Your task to perform on an android device: Check the weather Image 0: 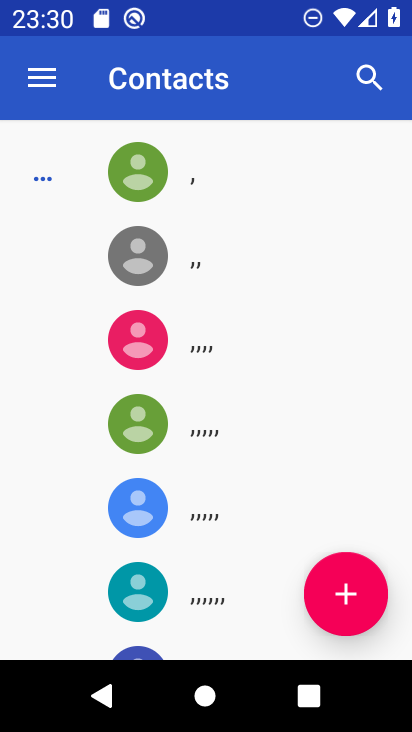
Step 0: press home button
Your task to perform on an android device: Check the weather Image 1: 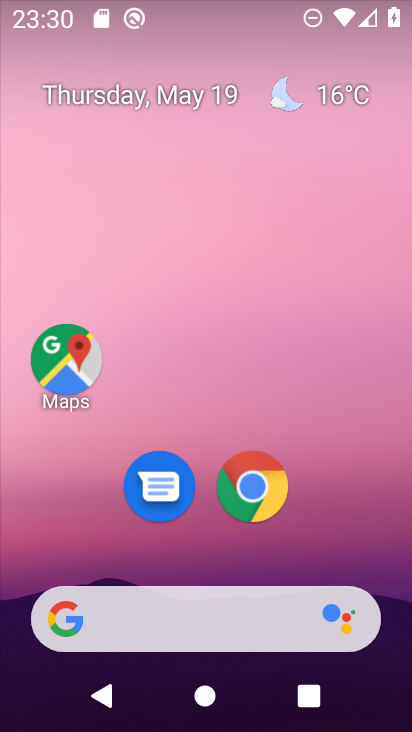
Step 1: drag from (387, 521) to (259, 13)
Your task to perform on an android device: Check the weather Image 2: 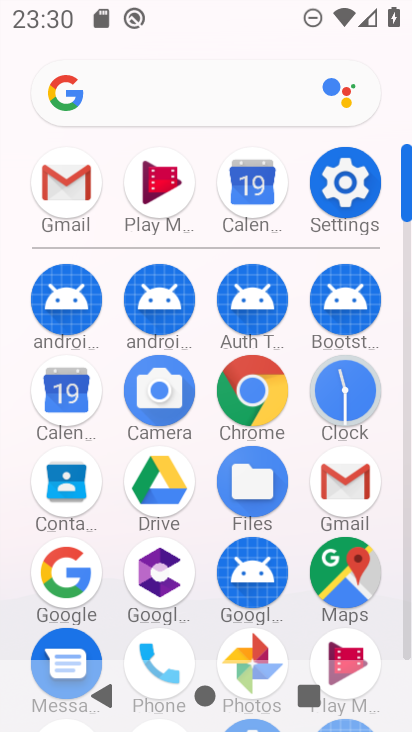
Step 2: click (228, 114)
Your task to perform on an android device: Check the weather Image 3: 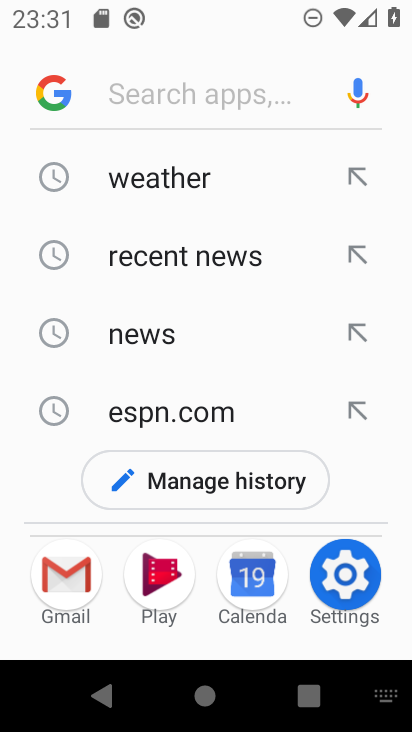
Step 3: click (202, 171)
Your task to perform on an android device: Check the weather Image 4: 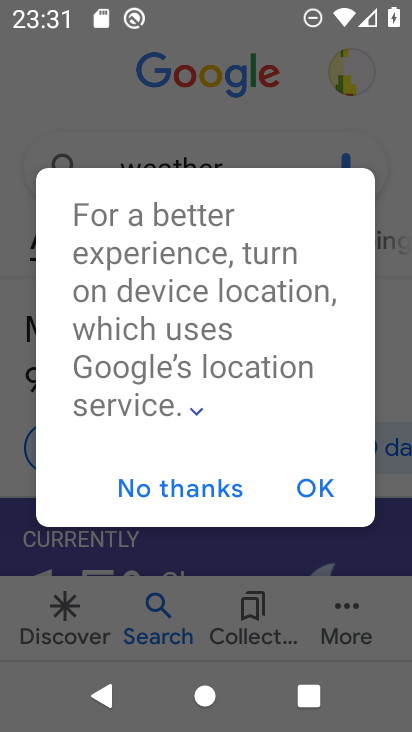
Step 4: click (325, 492)
Your task to perform on an android device: Check the weather Image 5: 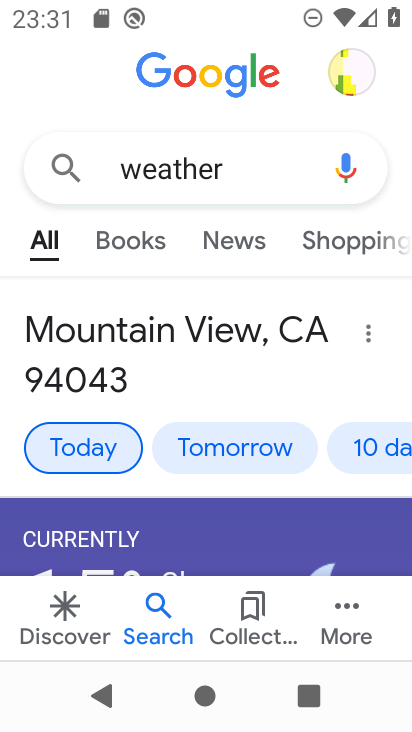
Step 5: task complete